Your task to perform on an android device: Open location settings Image 0: 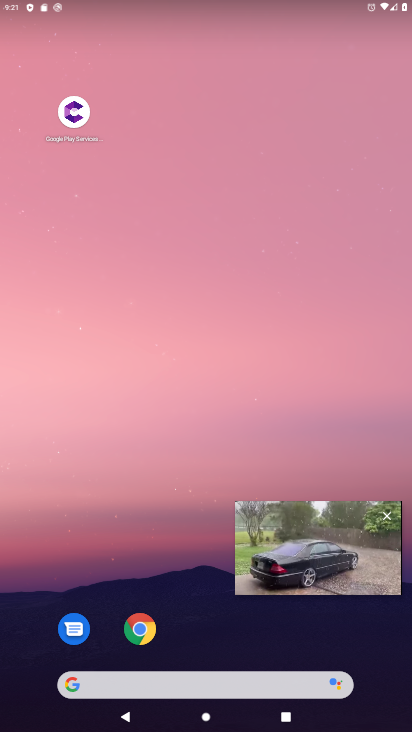
Step 0: click (383, 516)
Your task to perform on an android device: Open location settings Image 1: 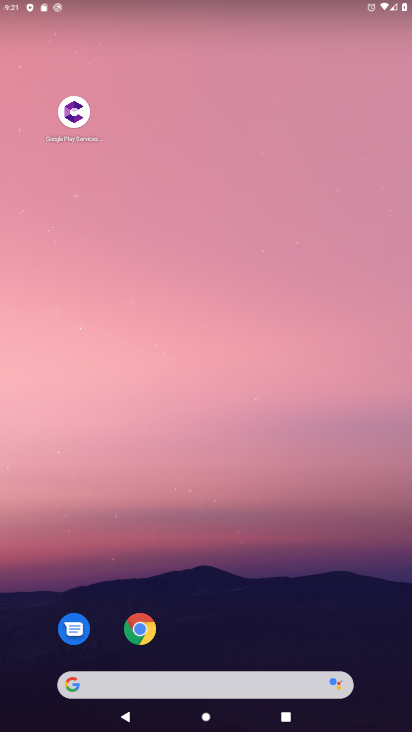
Step 1: drag from (291, 603) to (283, 89)
Your task to perform on an android device: Open location settings Image 2: 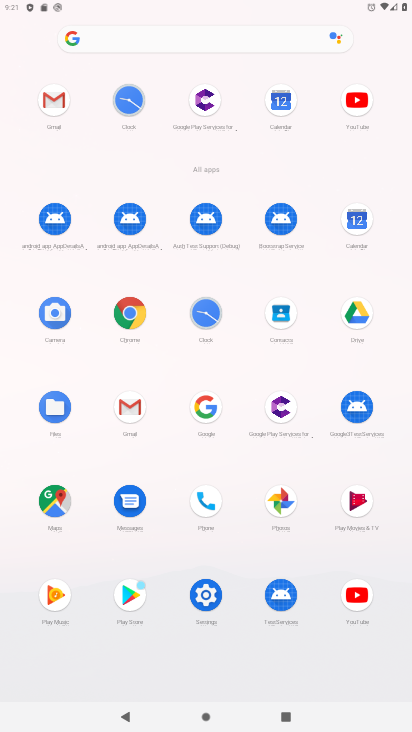
Step 2: click (203, 592)
Your task to perform on an android device: Open location settings Image 3: 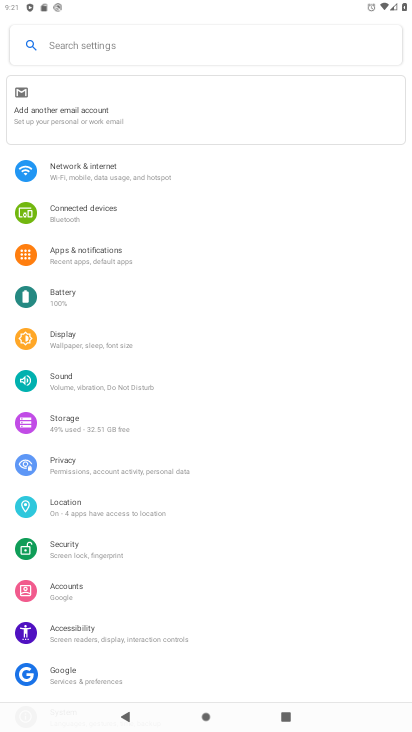
Step 3: click (72, 495)
Your task to perform on an android device: Open location settings Image 4: 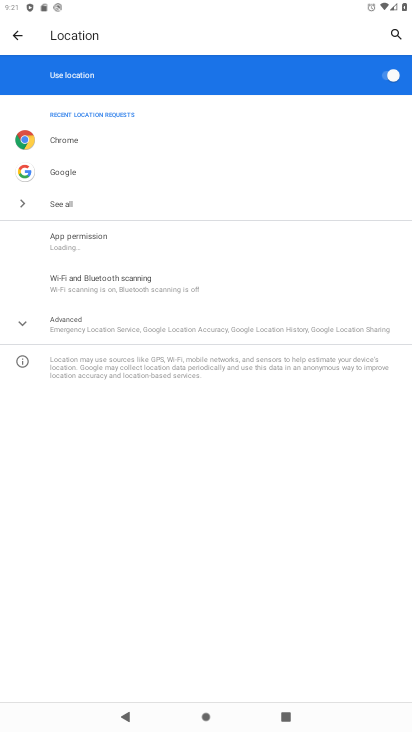
Step 4: click (21, 329)
Your task to perform on an android device: Open location settings Image 5: 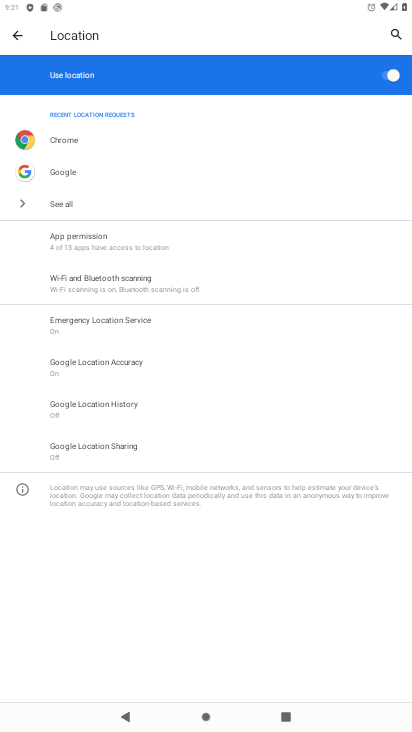
Step 5: task complete